Your task to perform on an android device: Search for razer huntsman on newegg, select the first entry, and add it to the cart. Image 0: 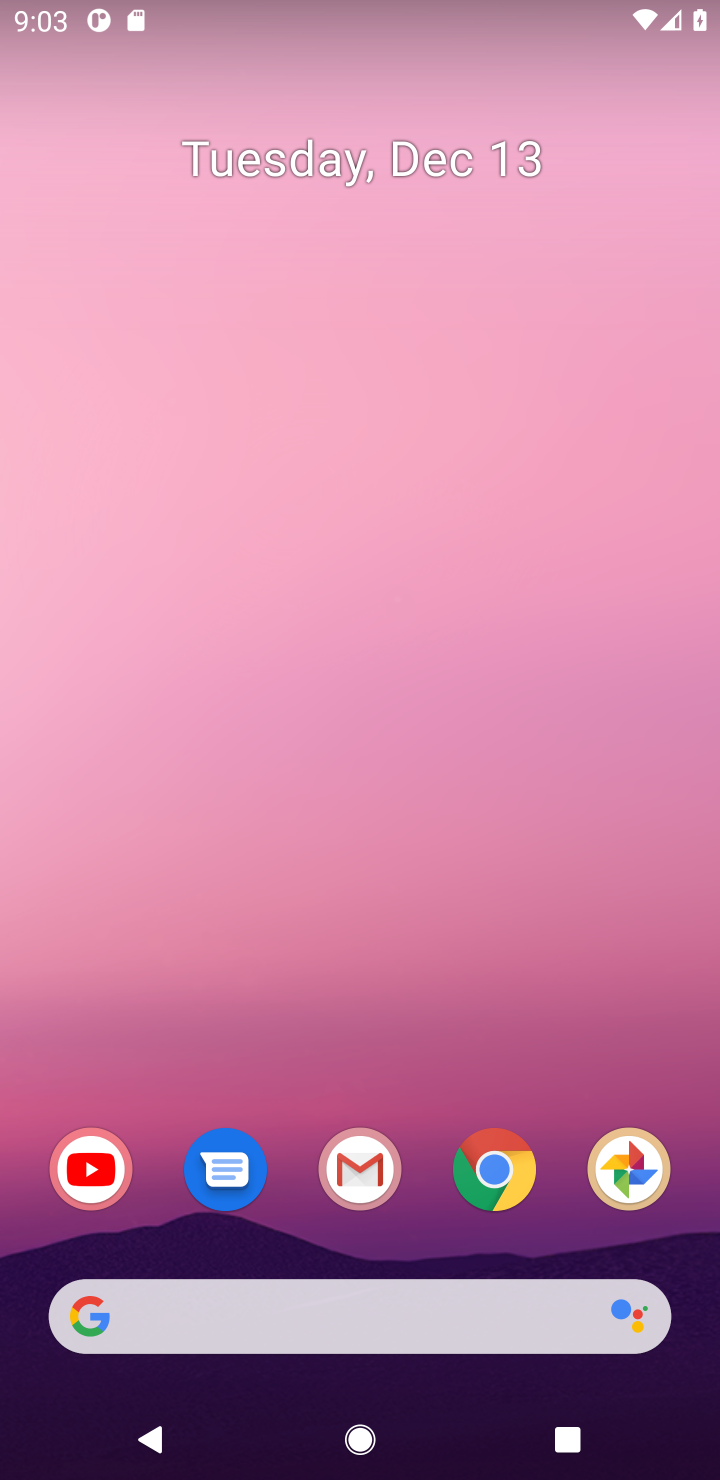
Step 0: click (418, 1306)
Your task to perform on an android device: Search for razer huntsman on newegg, select the first entry, and add it to the cart. Image 1: 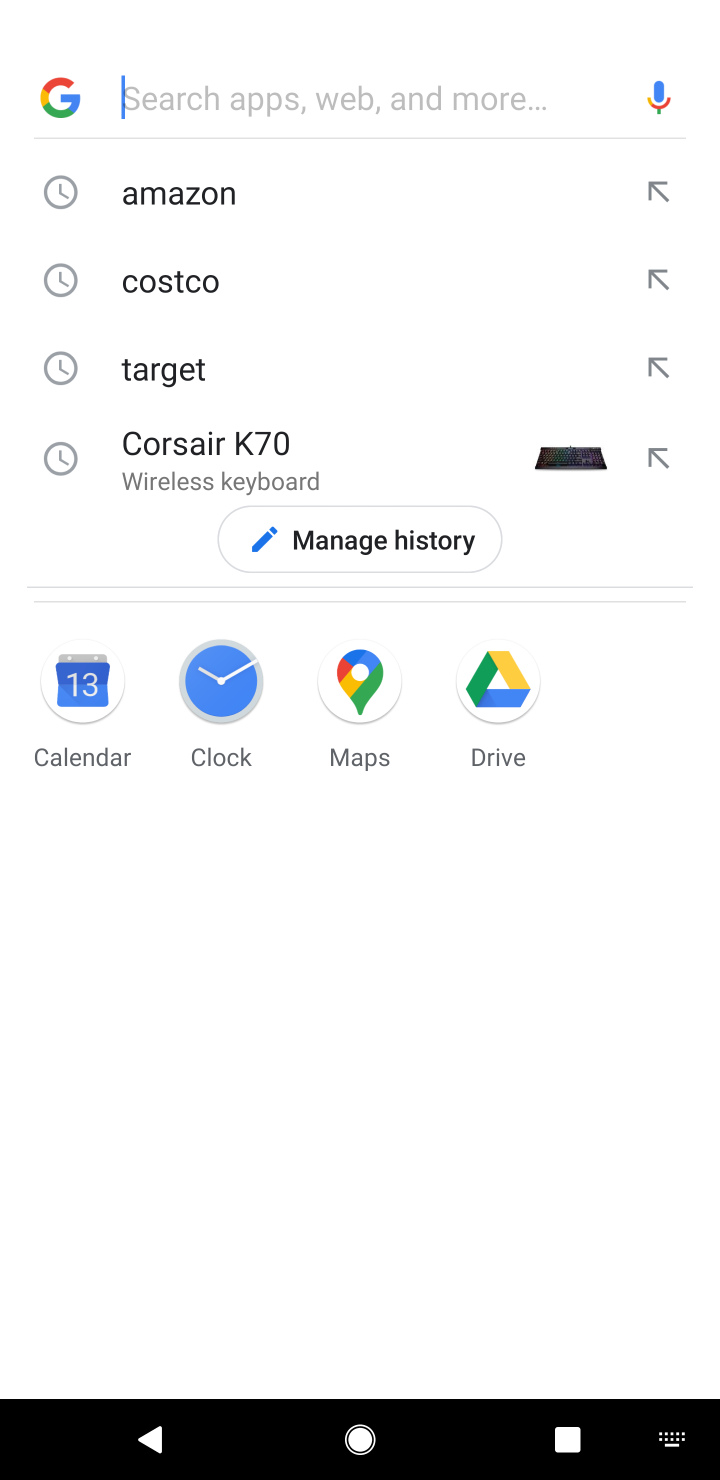
Step 1: type "newegg"
Your task to perform on an android device: Search for razer huntsman on newegg, select the first entry, and add it to the cart. Image 2: 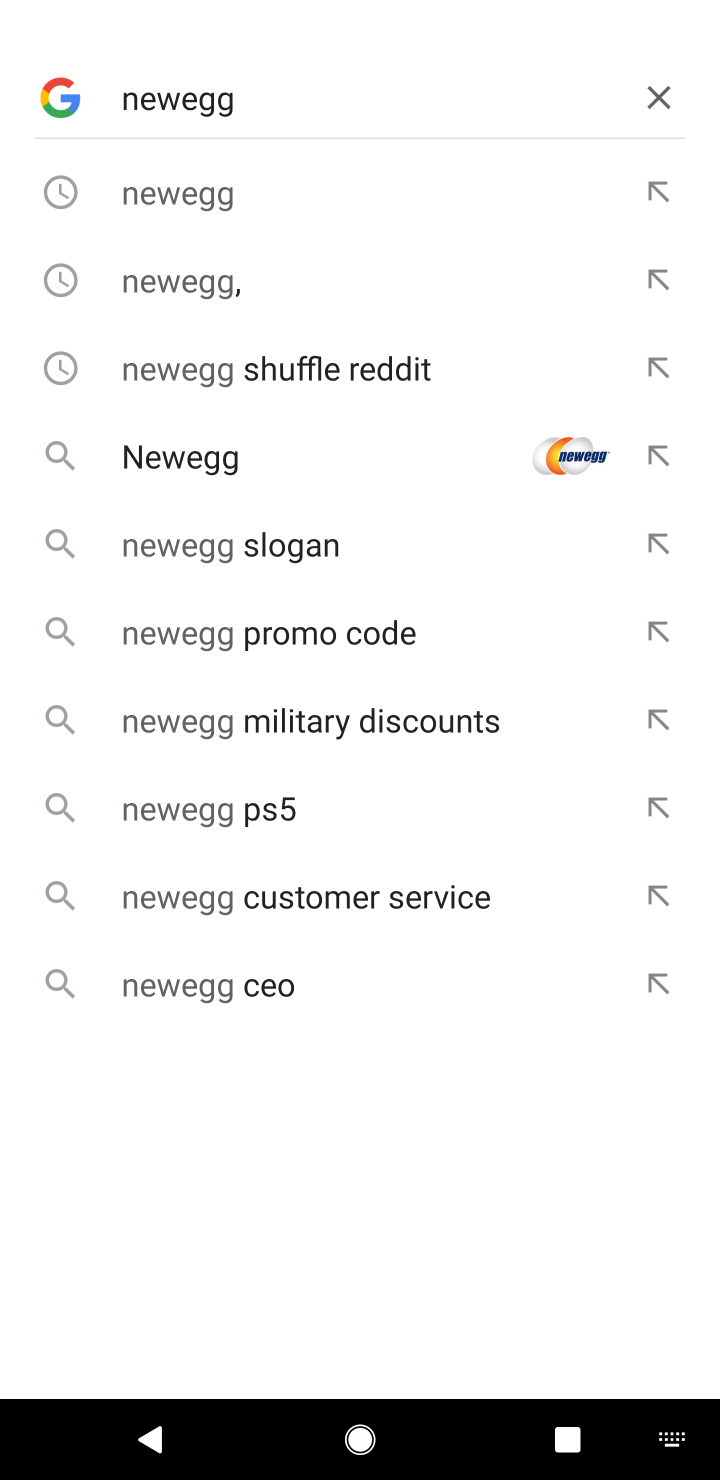
Step 2: click (180, 164)
Your task to perform on an android device: Search for razer huntsman on newegg, select the first entry, and add it to the cart. Image 3: 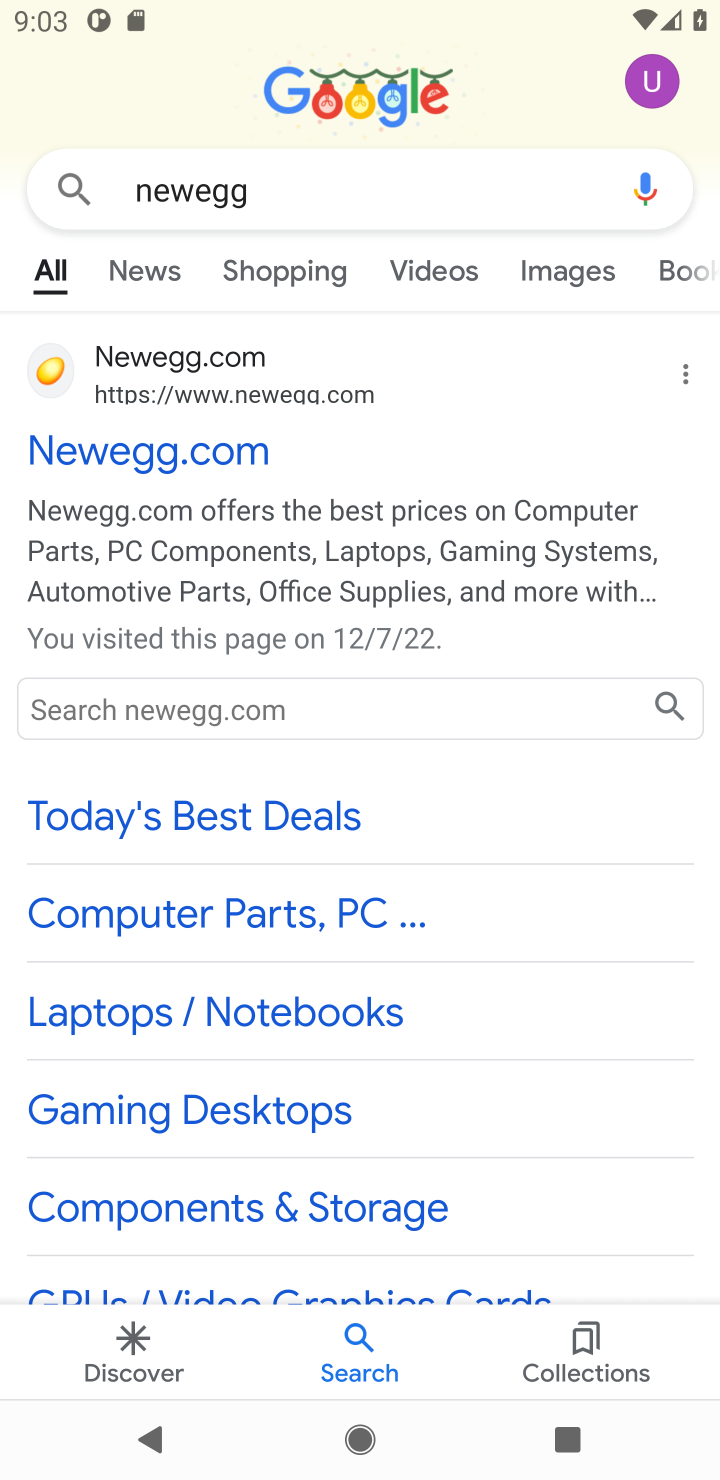
Step 3: click (82, 459)
Your task to perform on an android device: Search for razer huntsman on newegg, select the first entry, and add it to the cart. Image 4: 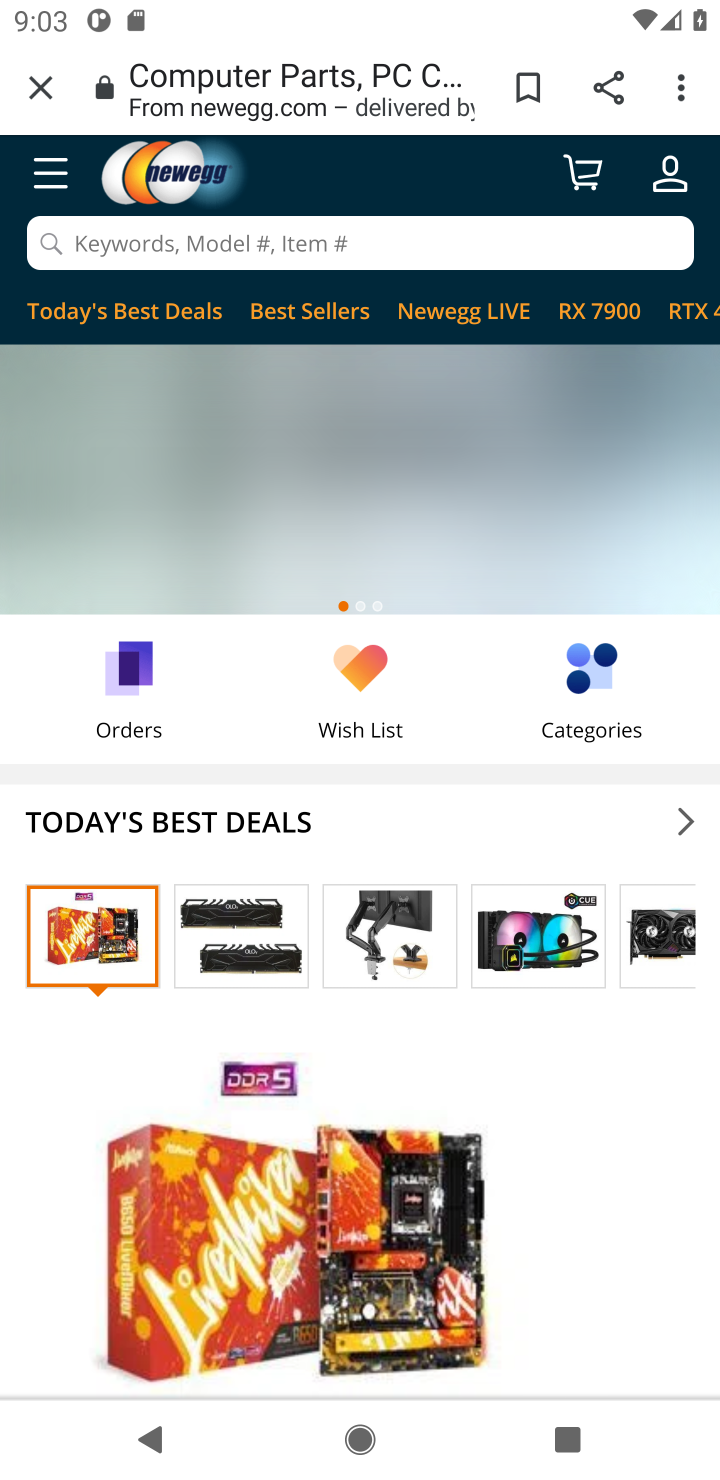
Step 4: click (322, 265)
Your task to perform on an android device: Search for razer huntsman on newegg, select the first entry, and add it to the cart. Image 5: 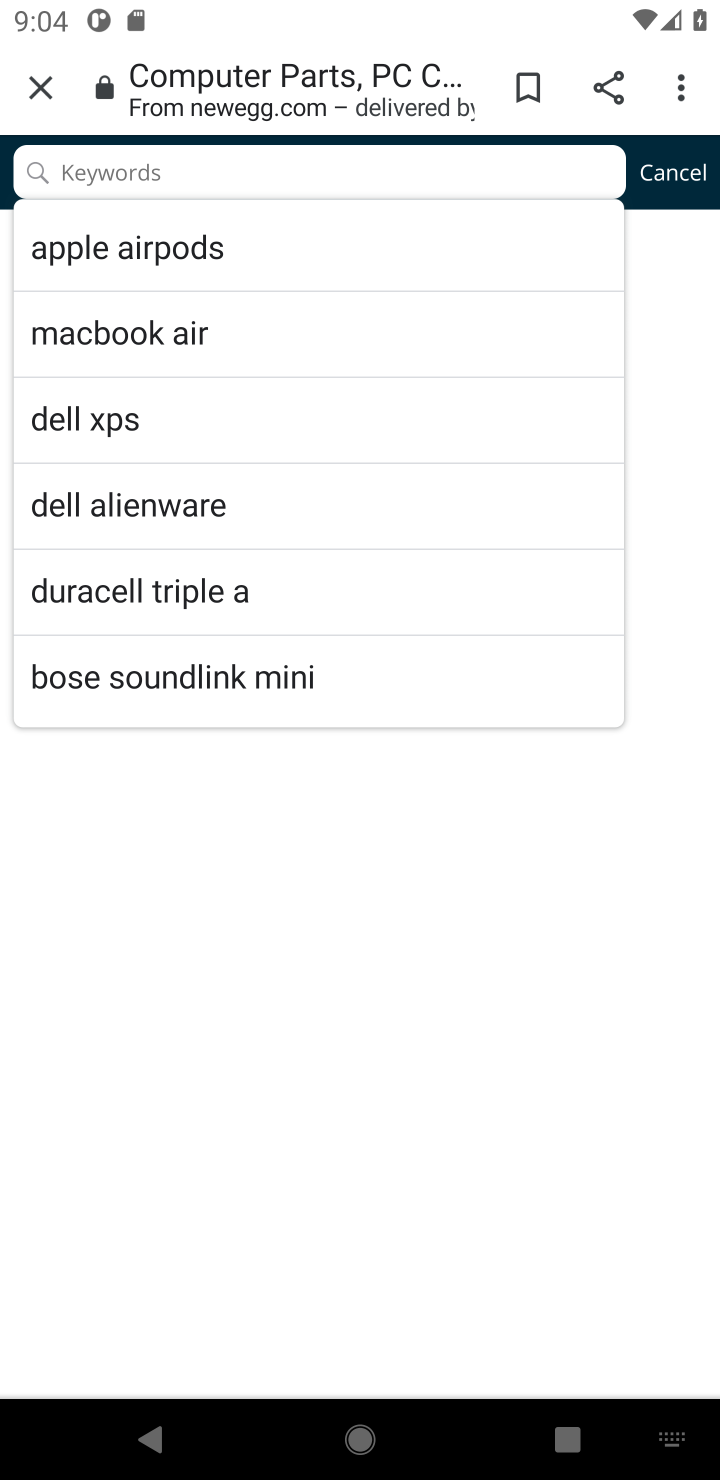
Step 5: type "razer huntsman"
Your task to perform on an android device: Search for razer huntsman on newegg, select the first entry, and add it to the cart. Image 6: 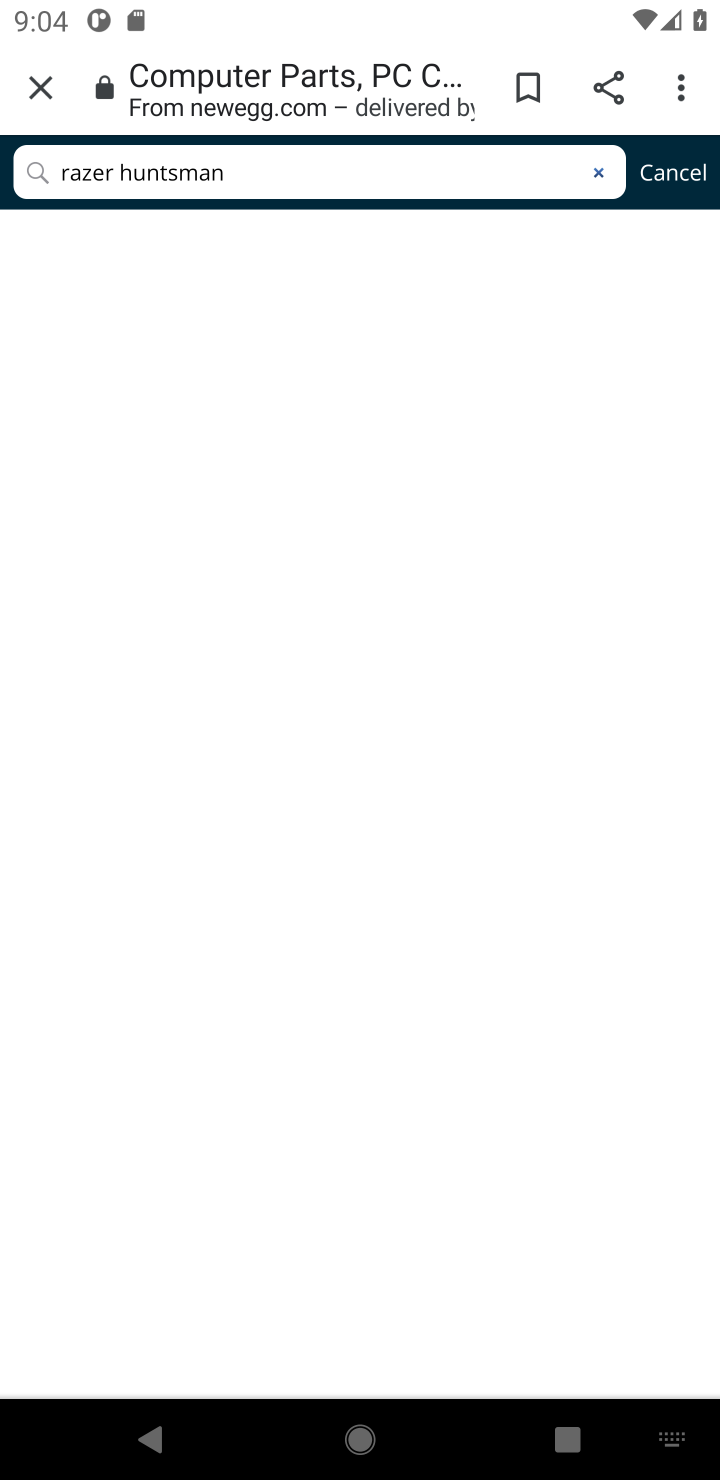
Step 6: task complete